Your task to perform on an android device: Open the stopwatch Image 0: 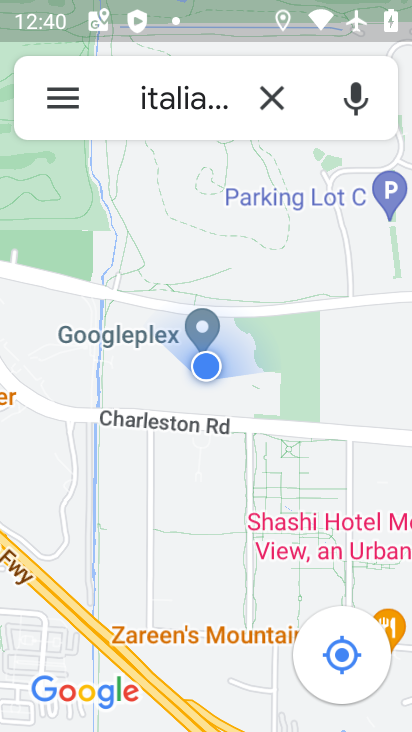
Step 0: press home button
Your task to perform on an android device: Open the stopwatch Image 1: 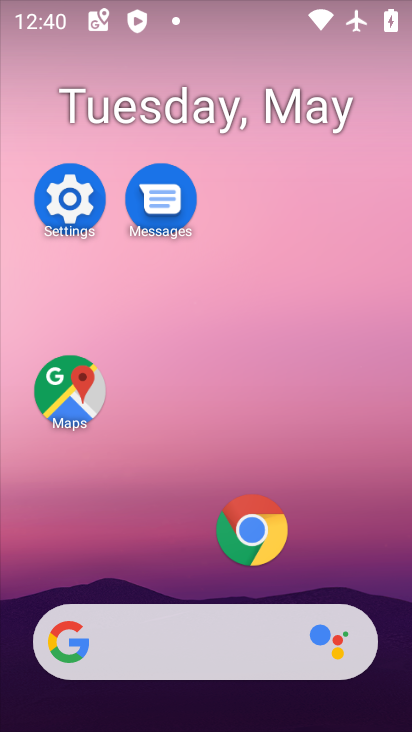
Step 1: drag from (187, 511) to (313, 30)
Your task to perform on an android device: Open the stopwatch Image 2: 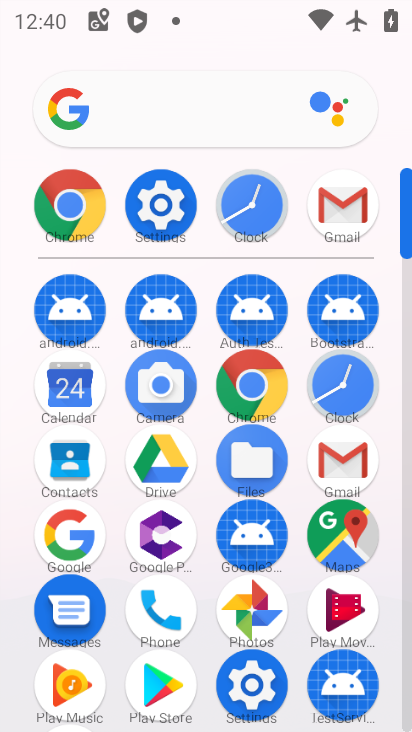
Step 2: click (325, 406)
Your task to perform on an android device: Open the stopwatch Image 3: 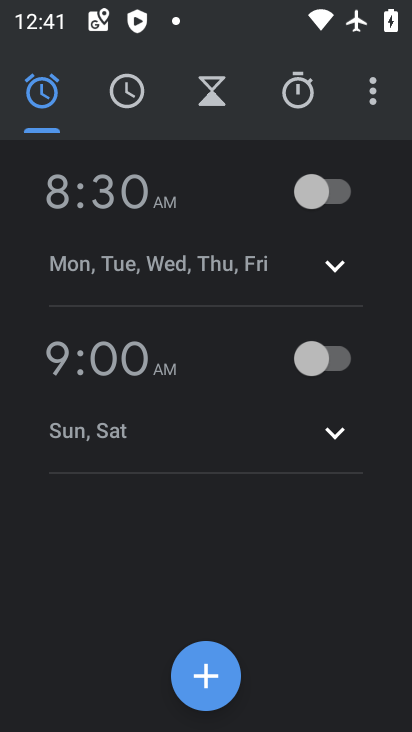
Step 3: click (286, 109)
Your task to perform on an android device: Open the stopwatch Image 4: 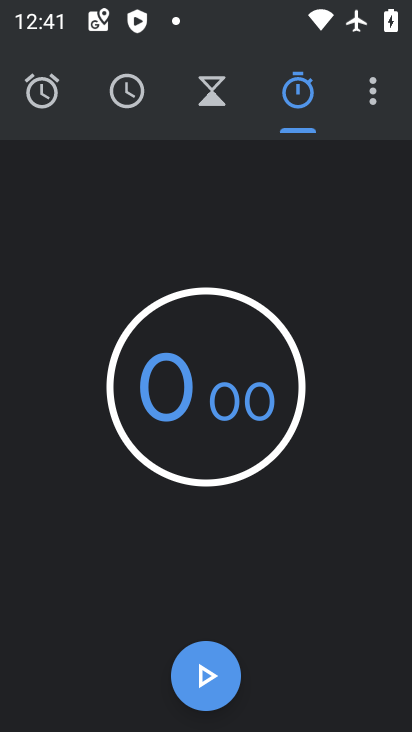
Step 4: task complete